Your task to perform on an android device: see sites visited before in the chrome app Image 0: 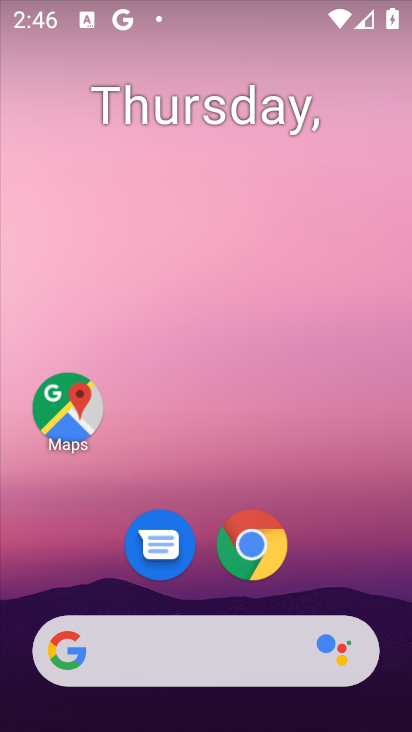
Step 0: click (243, 562)
Your task to perform on an android device: see sites visited before in the chrome app Image 1: 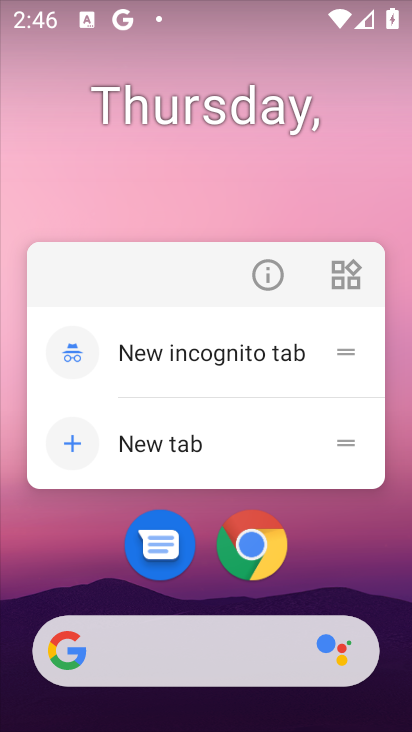
Step 1: click (258, 550)
Your task to perform on an android device: see sites visited before in the chrome app Image 2: 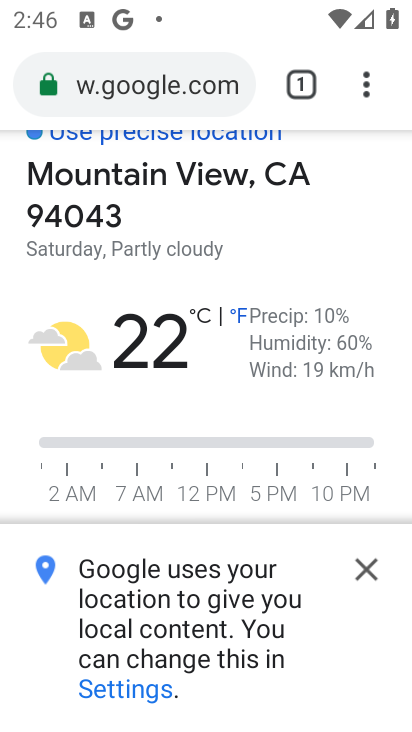
Step 2: click (370, 71)
Your task to perform on an android device: see sites visited before in the chrome app Image 3: 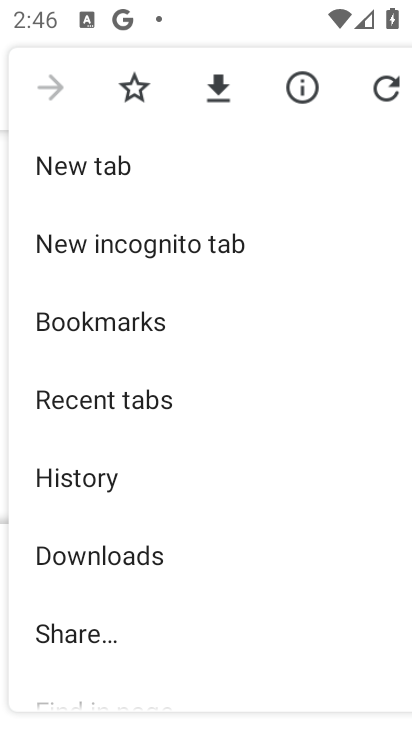
Step 3: click (147, 400)
Your task to perform on an android device: see sites visited before in the chrome app Image 4: 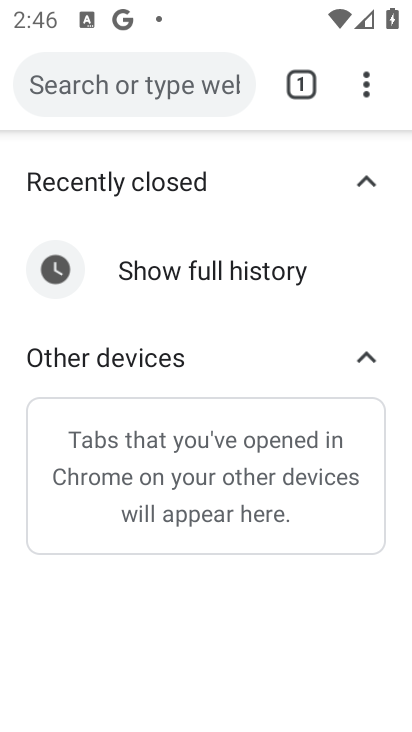
Step 4: task complete